Your task to perform on an android device: turn off improve location accuracy Image 0: 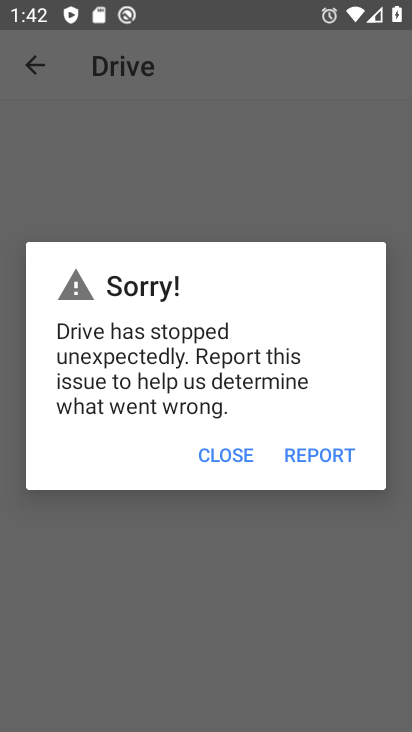
Step 0: press home button
Your task to perform on an android device: turn off improve location accuracy Image 1: 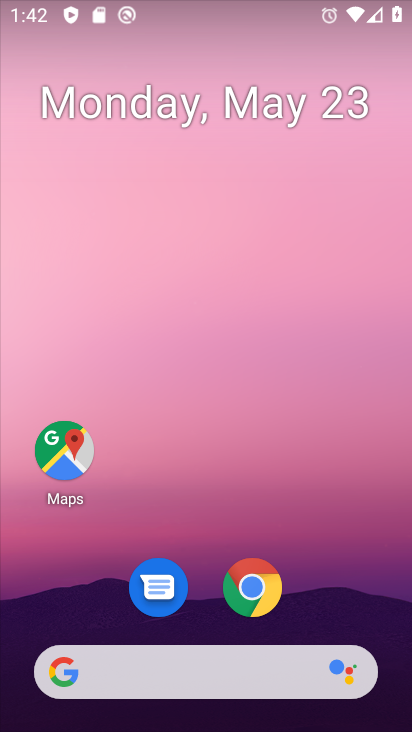
Step 1: drag from (372, 579) to (299, 205)
Your task to perform on an android device: turn off improve location accuracy Image 2: 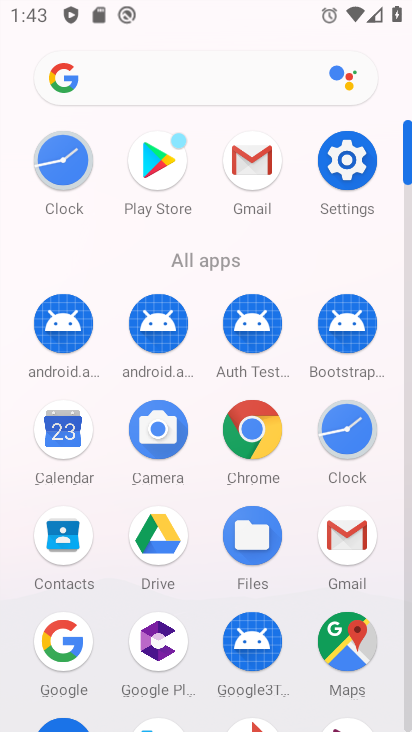
Step 2: click (362, 180)
Your task to perform on an android device: turn off improve location accuracy Image 3: 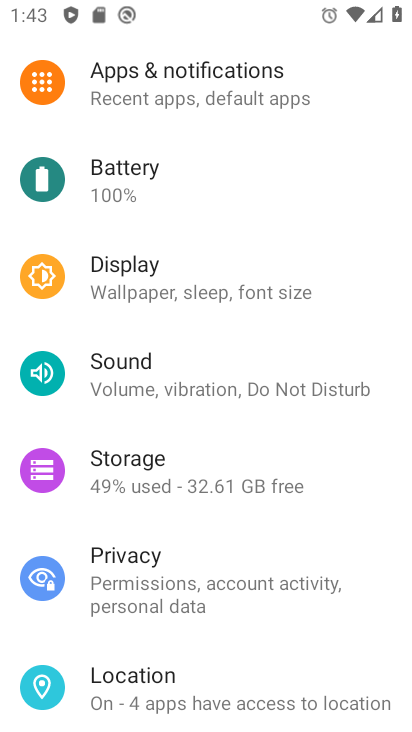
Step 3: click (182, 688)
Your task to perform on an android device: turn off improve location accuracy Image 4: 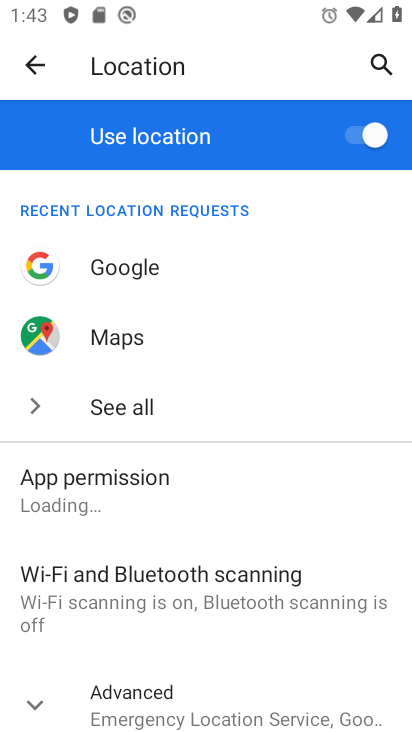
Step 4: drag from (212, 636) to (229, 437)
Your task to perform on an android device: turn off improve location accuracy Image 5: 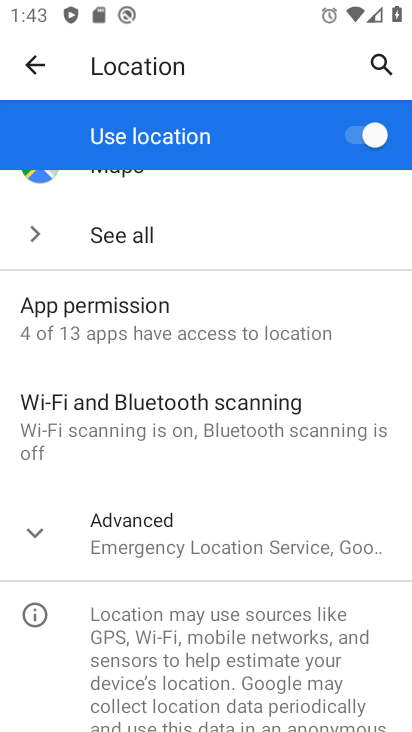
Step 5: click (223, 531)
Your task to perform on an android device: turn off improve location accuracy Image 6: 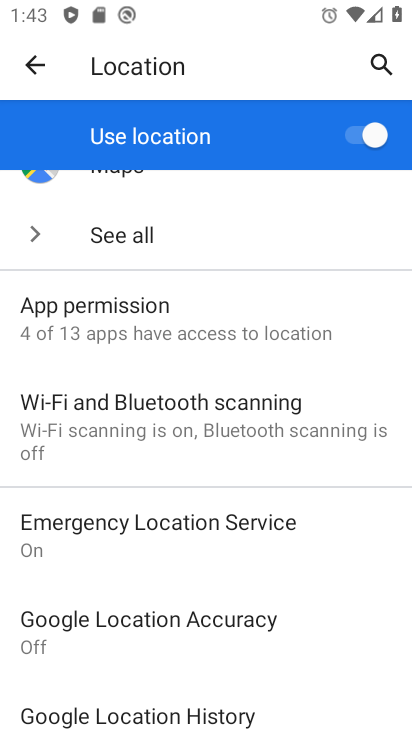
Step 6: drag from (225, 588) to (225, 440)
Your task to perform on an android device: turn off improve location accuracy Image 7: 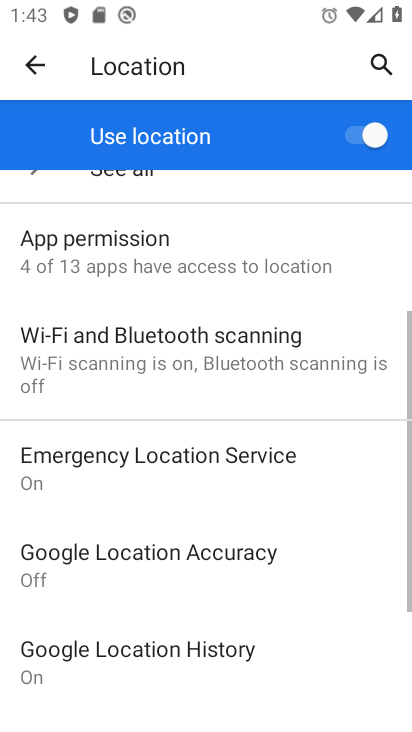
Step 7: click (225, 440)
Your task to perform on an android device: turn off improve location accuracy Image 8: 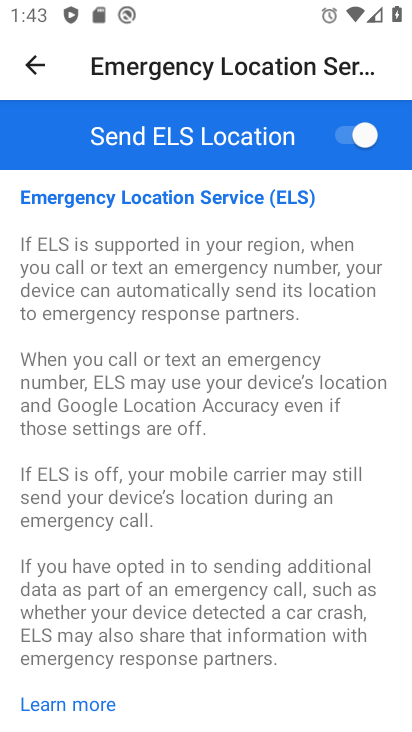
Step 8: task complete